Your task to perform on an android device: find which apps use the phone's location Image 0: 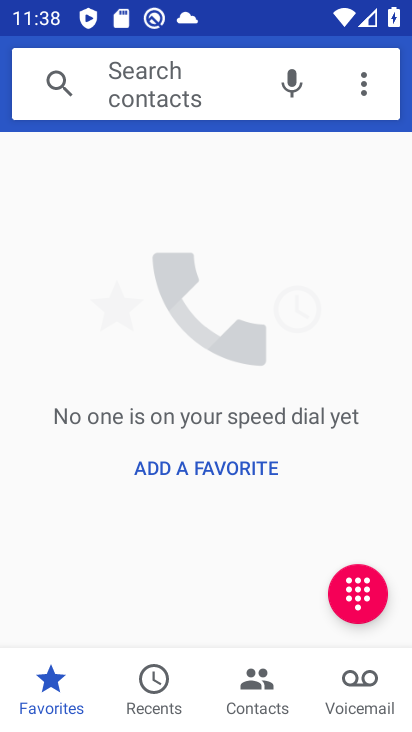
Step 0: press home button
Your task to perform on an android device: find which apps use the phone's location Image 1: 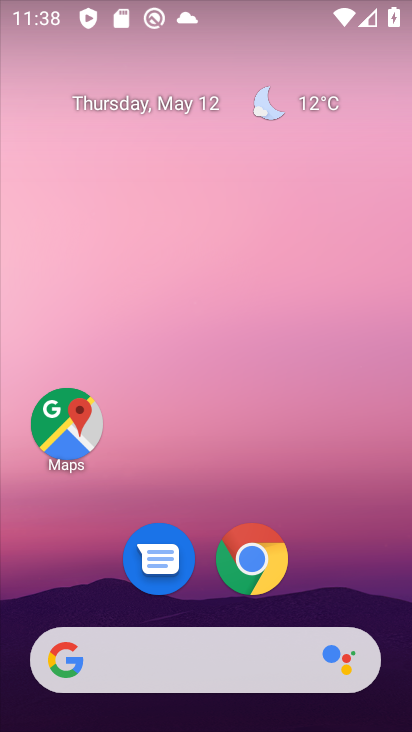
Step 1: drag from (183, 629) to (342, 15)
Your task to perform on an android device: find which apps use the phone's location Image 2: 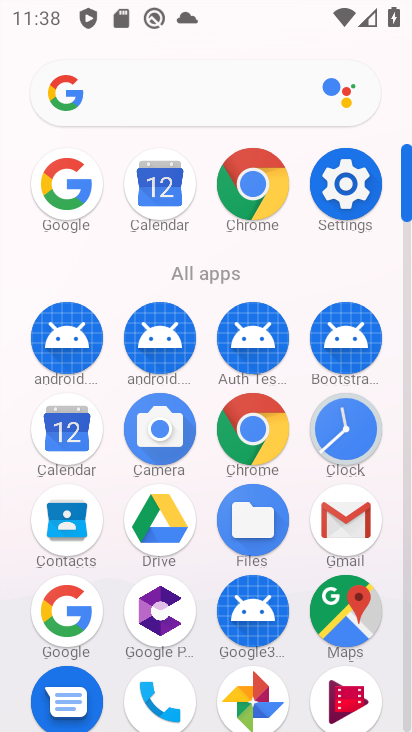
Step 2: drag from (183, 645) to (276, 301)
Your task to perform on an android device: find which apps use the phone's location Image 3: 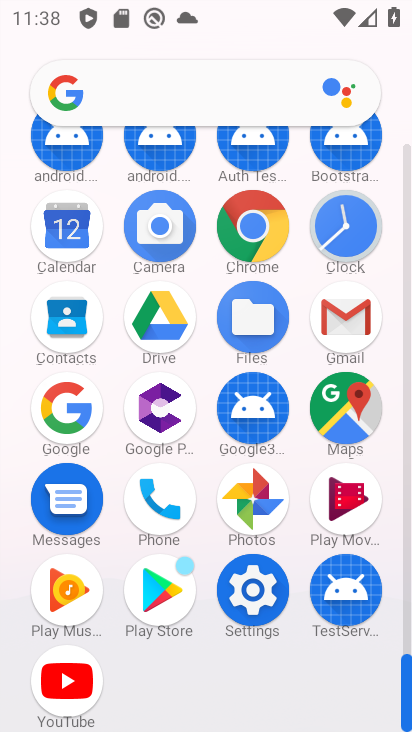
Step 3: click (268, 580)
Your task to perform on an android device: find which apps use the phone's location Image 4: 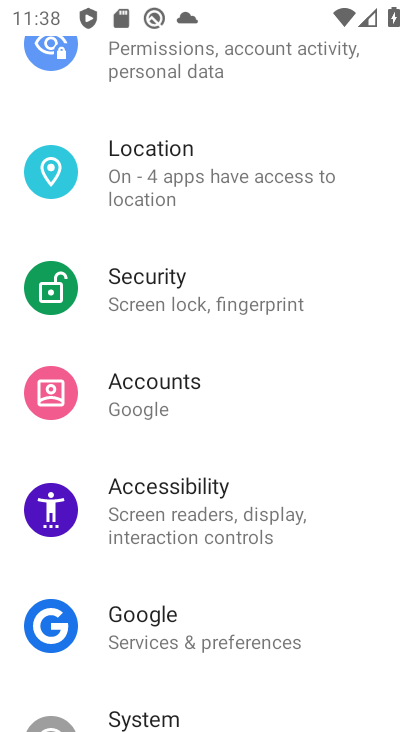
Step 4: click (177, 170)
Your task to perform on an android device: find which apps use the phone's location Image 5: 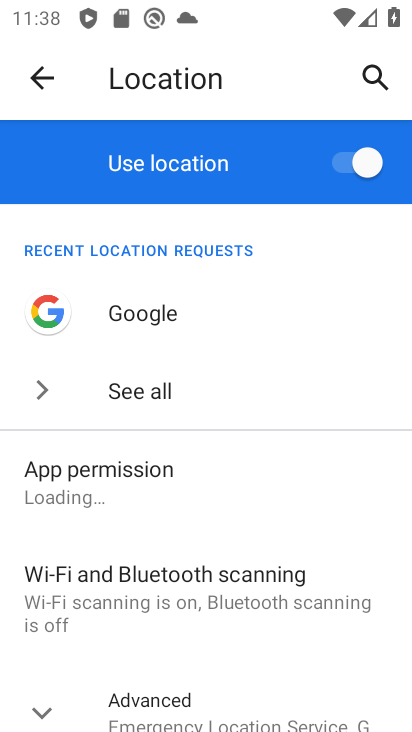
Step 5: drag from (169, 667) to (227, 481)
Your task to perform on an android device: find which apps use the phone's location Image 6: 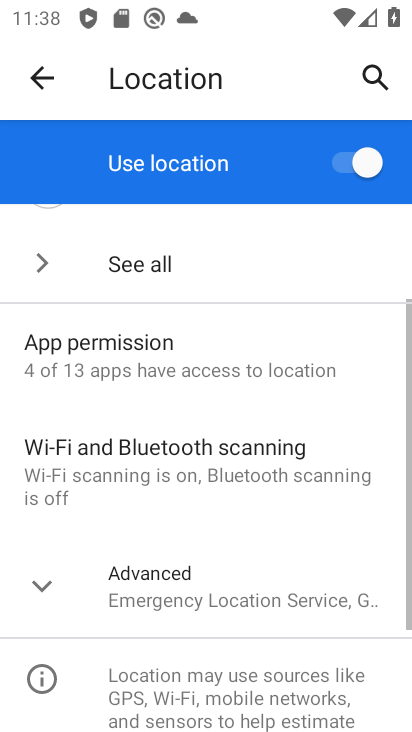
Step 6: click (190, 363)
Your task to perform on an android device: find which apps use the phone's location Image 7: 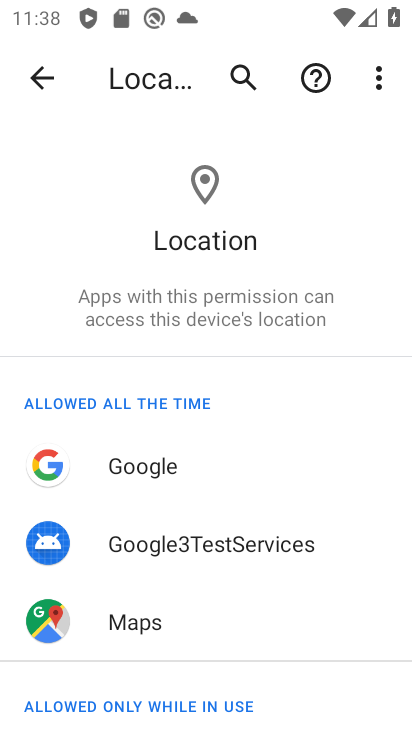
Step 7: task complete